Your task to perform on an android device: change text size in settings app Image 0: 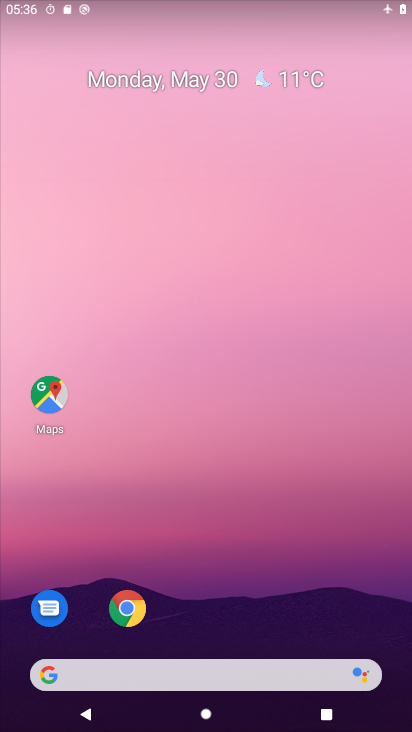
Step 0: drag from (286, 535) to (110, 2)
Your task to perform on an android device: change text size in settings app Image 1: 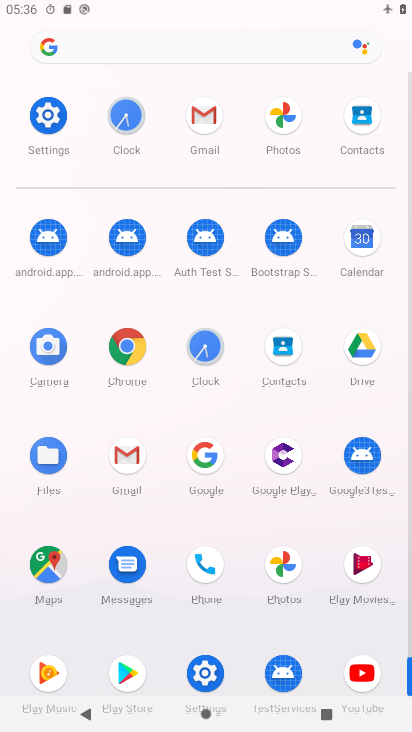
Step 1: click (43, 126)
Your task to perform on an android device: change text size in settings app Image 2: 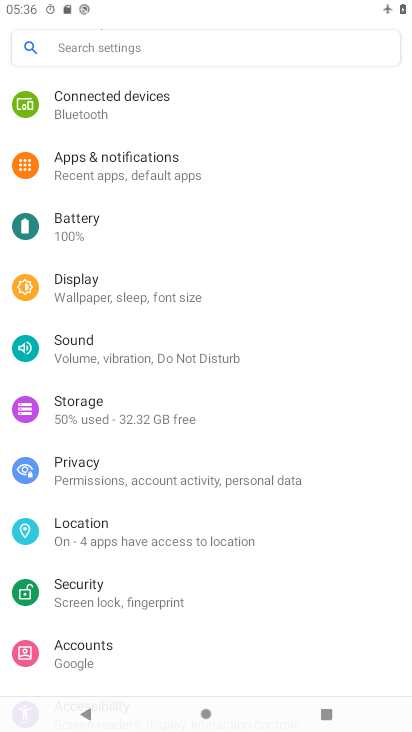
Step 2: click (155, 289)
Your task to perform on an android device: change text size in settings app Image 3: 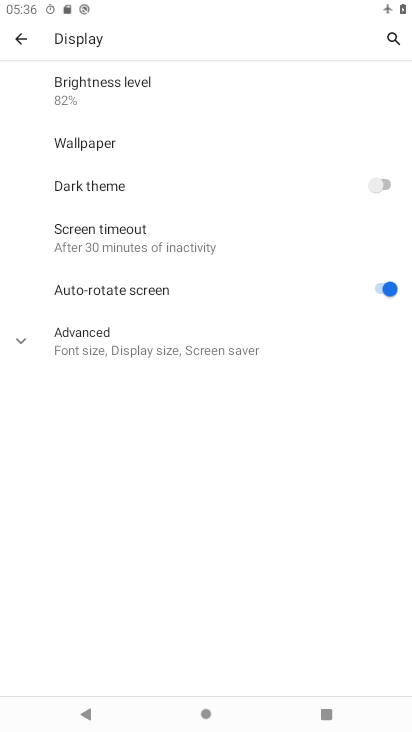
Step 3: click (122, 342)
Your task to perform on an android device: change text size in settings app Image 4: 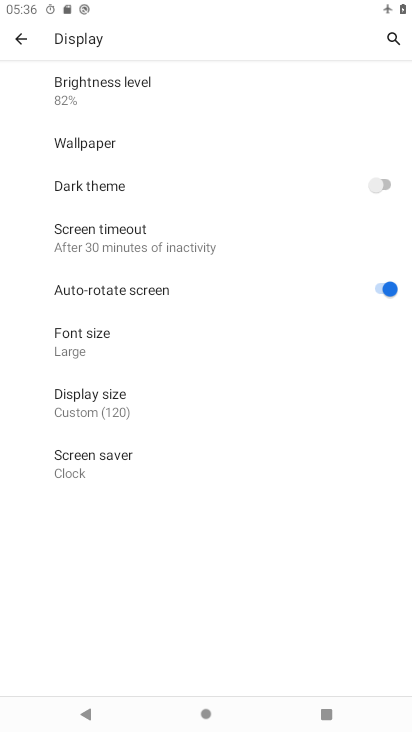
Step 4: click (140, 341)
Your task to perform on an android device: change text size in settings app Image 5: 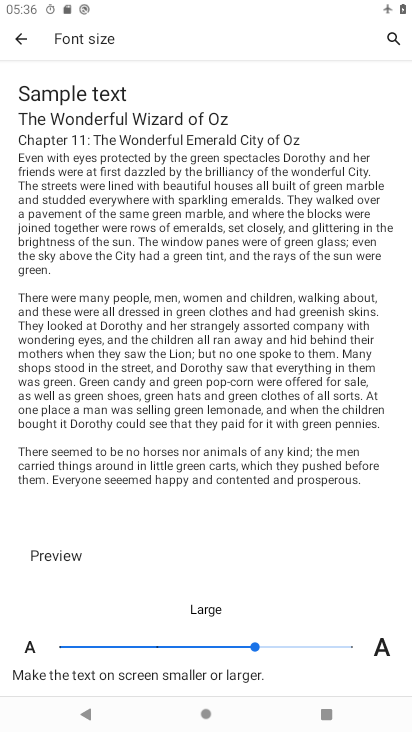
Step 5: click (165, 647)
Your task to perform on an android device: change text size in settings app Image 6: 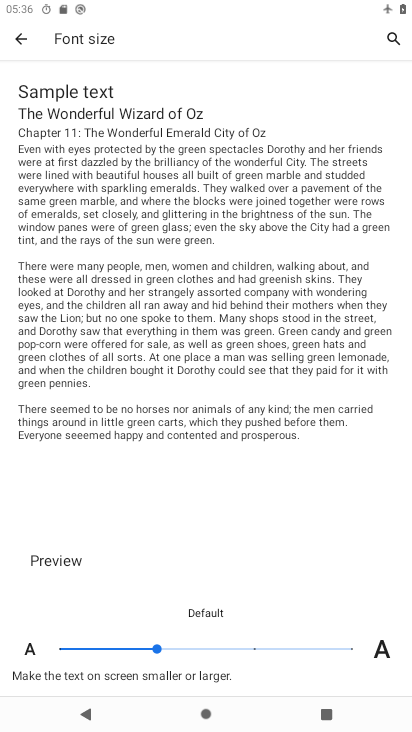
Step 6: click (341, 656)
Your task to perform on an android device: change text size in settings app Image 7: 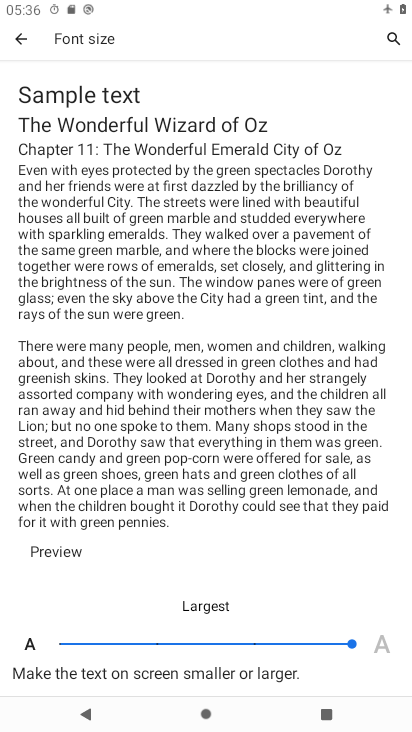
Step 7: task complete